Your task to perform on an android device: Go to Android settings Image 0: 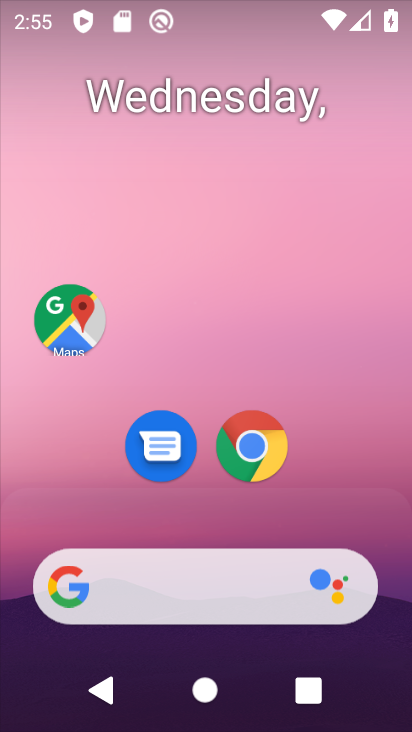
Step 0: drag from (364, 541) to (345, 119)
Your task to perform on an android device: Go to Android settings Image 1: 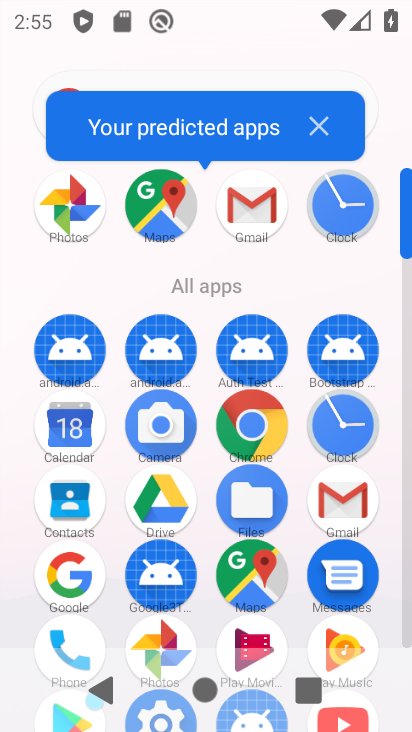
Step 1: drag from (231, 289) to (242, 65)
Your task to perform on an android device: Go to Android settings Image 2: 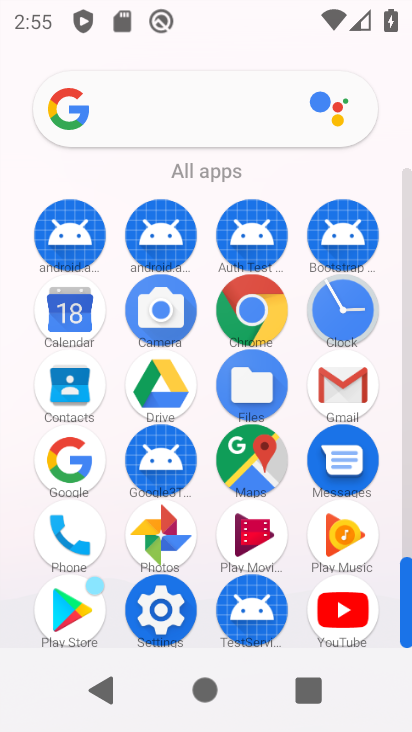
Step 2: click (168, 598)
Your task to perform on an android device: Go to Android settings Image 3: 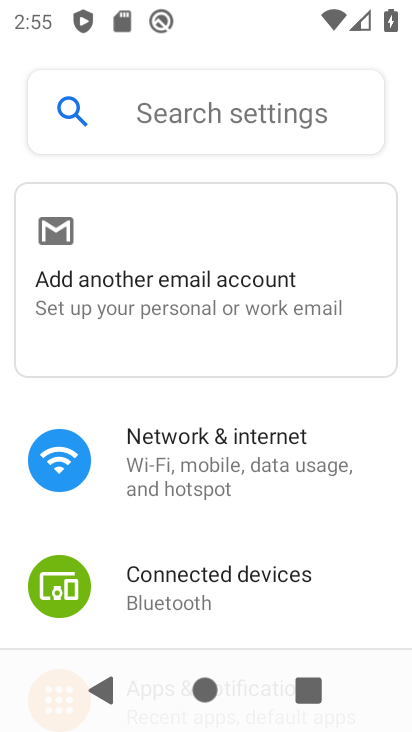
Step 3: task complete